Your task to perform on an android device: toggle priority inbox in the gmail app Image 0: 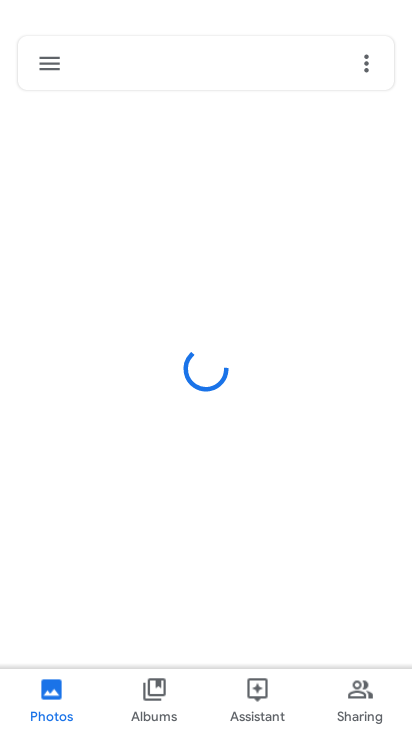
Step 0: press home button
Your task to perform on an android device: toggle priority inbox in the gmail app Image 1: 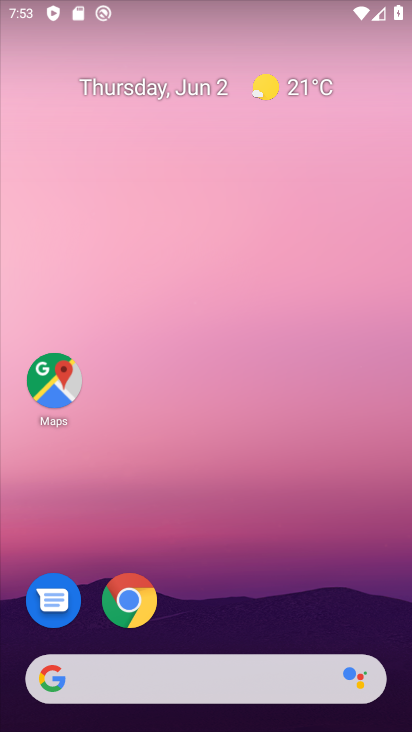
Step 1: drag from (370, 611) to (372, 103)
Your task to perform on an android device: toggle priority inbox in the gmail app Image 2: 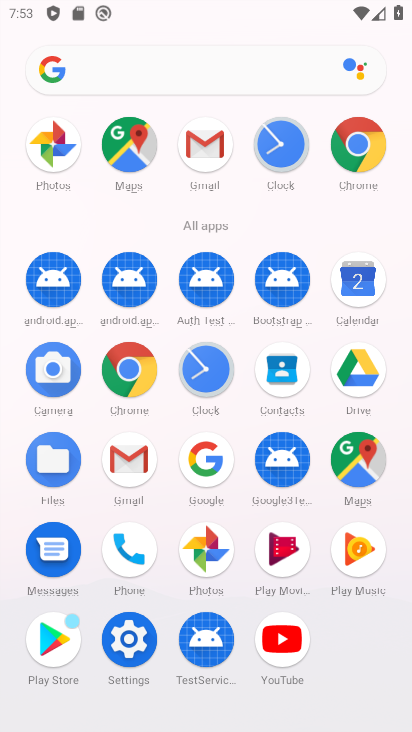
Step 2: click (137, 463)
Your task to perform on an android device: toggle priority inbox in the gmail app Image 3: 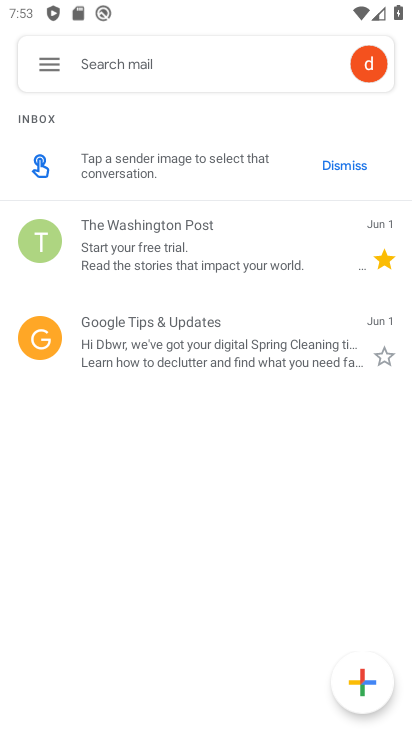
Step 3: click (57, 69)
Your task to perform on an android device: toggle priority inbox in the gmail app Image 4: 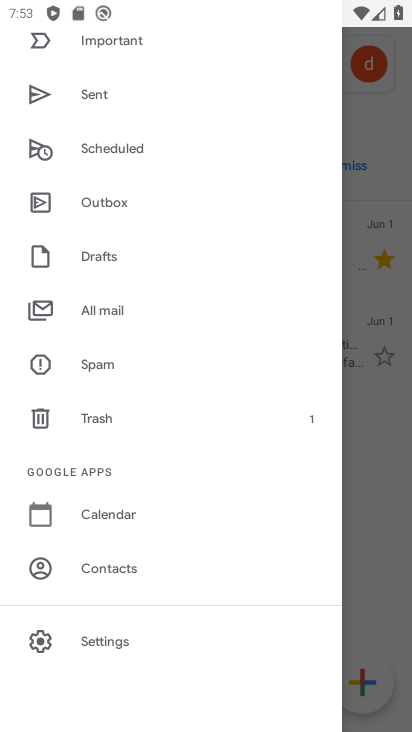
Step 4: click (156, 643)
Your task to perform on an android device: toggle priority inbox in the gmail app Image 5: 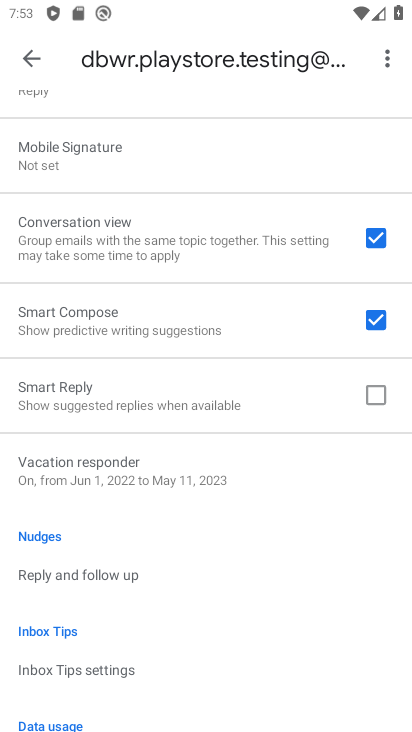
Step 5: task complete